Your task to perform on an android device: Open Youtube and go to "Your channel" Image 0: 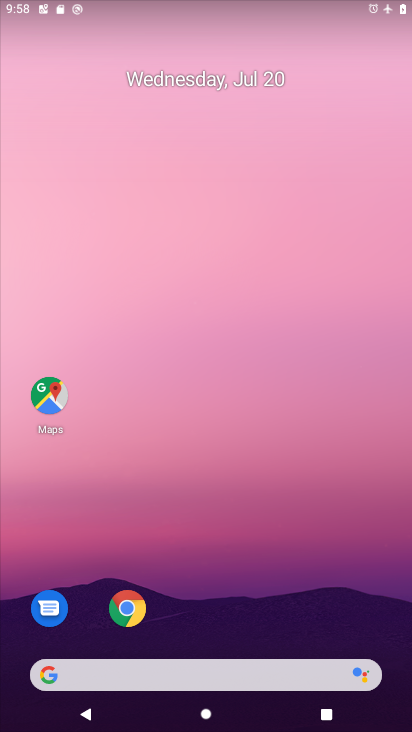
Step 0: drag from (204, 615) to (217, 212)
Your task to perform on an android device: Open Youtube and go to "Your channel" Image 1: 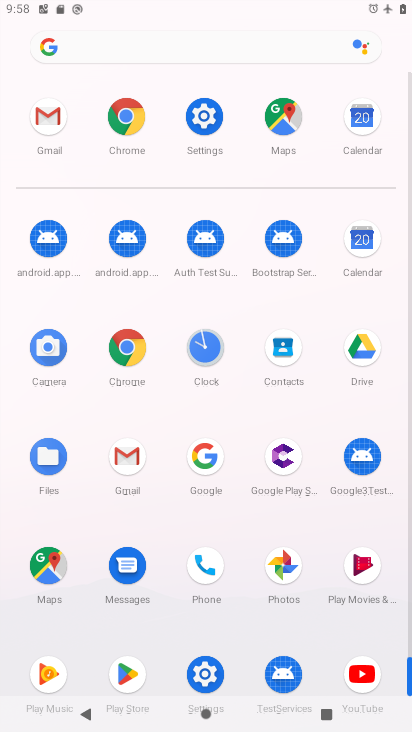
Step 1: click (355, 682)
Your task to perform on an android device: Open Youtube and go to "Your channel" Image 2: 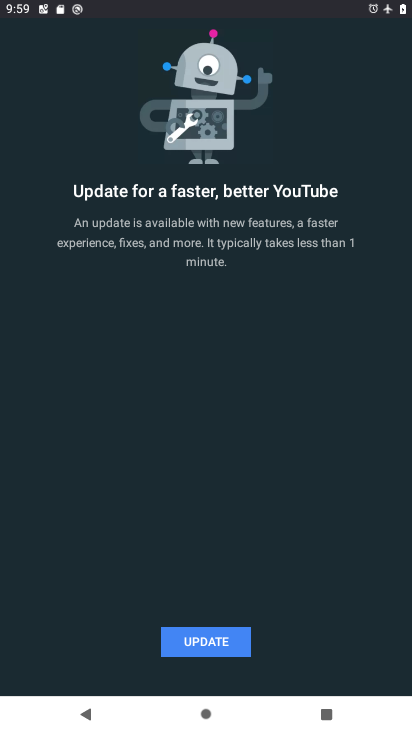
Step 2: task complete